Your task to perform on an android device: Go to Google maps Image 0: 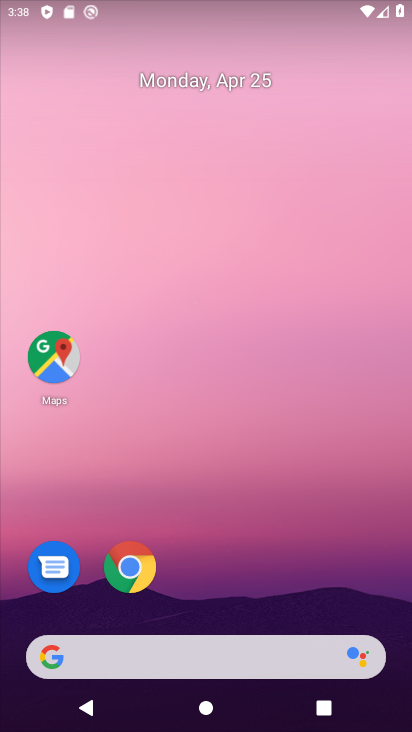
Step 0: drag from (208, 603) to (203, 22)
Your task to perform on an android device: Go to Google maps Image 1: 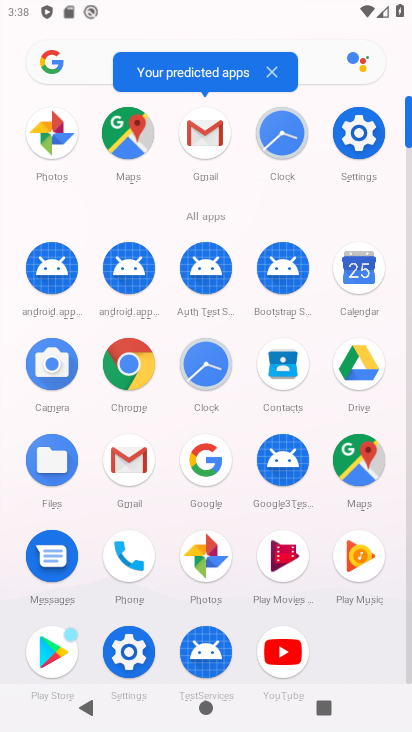
Step 1: click (375, 449)
Your task to perform on an android device: Go to Google maps Image 2: 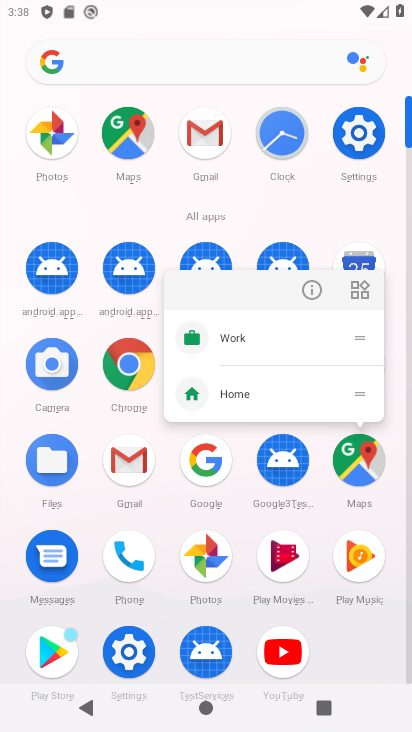
Step 2: click (364, 455)
Your task to perform on an android device: Go to Google maps Image 3: 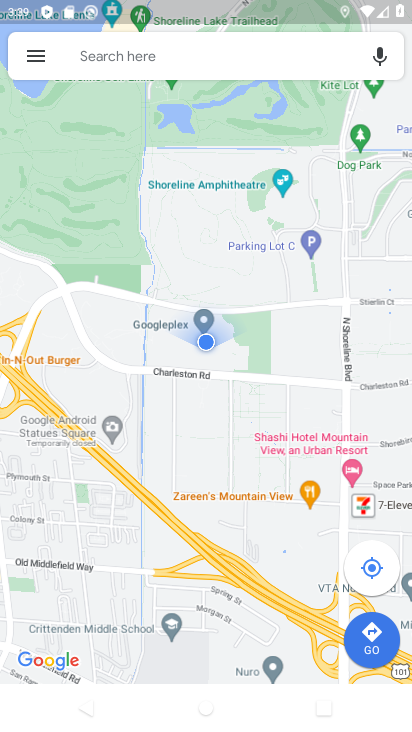
Step 3: click (40, 51)
Your task to perform on an android device: Go to Google maps Image 4: 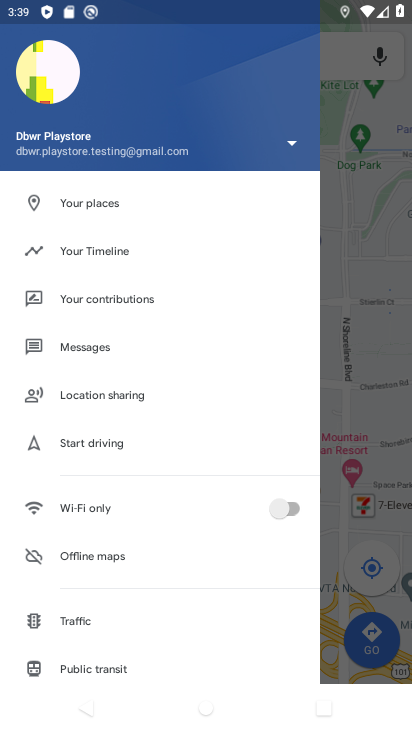
Step 4: task complete